Your task to perform on an android device: Open Google Image 0: 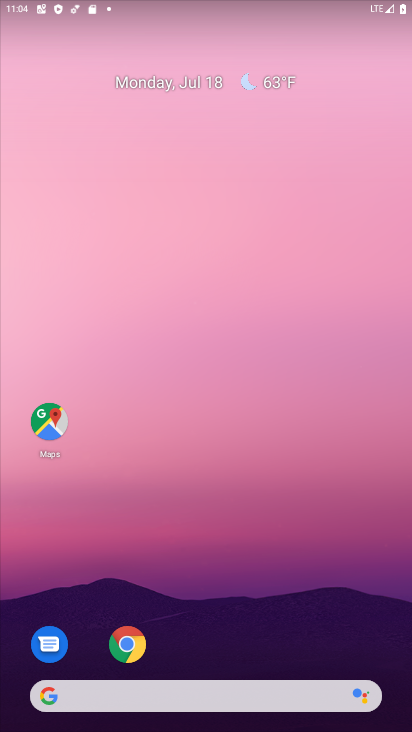
Step 0: drag from (293, 654) to (260, 87)
Your task to perform on an android device: Open Google Image 1: 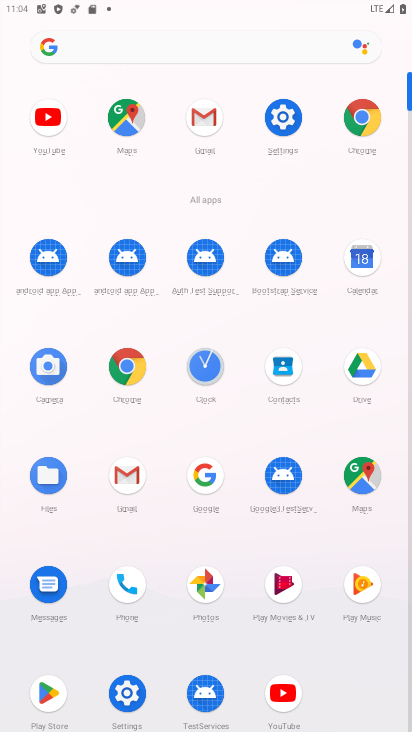
Step 1: click (198, 476)
Your task to perform on an android device: Open Google Image 2: 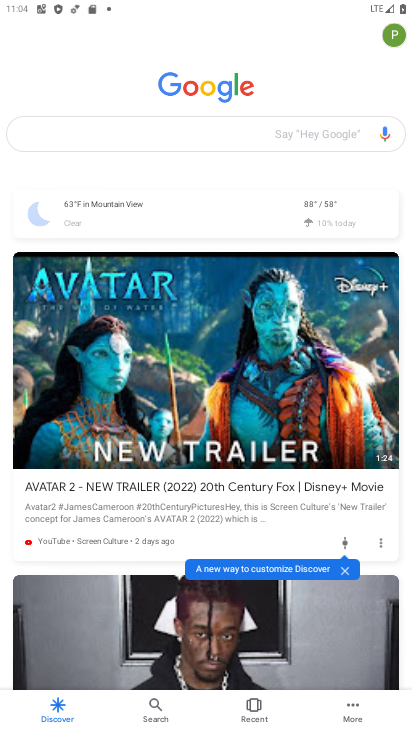
Step 2: task complete